Your task to perform on an android device: find photos in the google photos app Image 0: 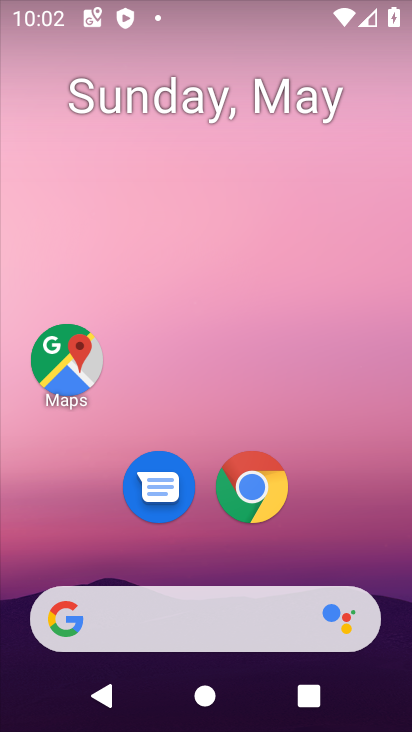
Step 0: drag from (366, 562) to (326, 213)
Your task to perform on an android device: find photos in the google photos app Image 1: 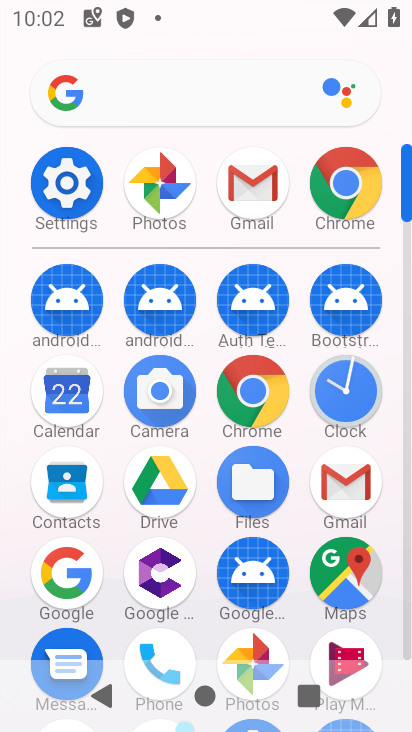
Step 1: drag from (297, 529) to (295, 375)
Your task to perform on an android device: find photos in the google photos app Image 2: 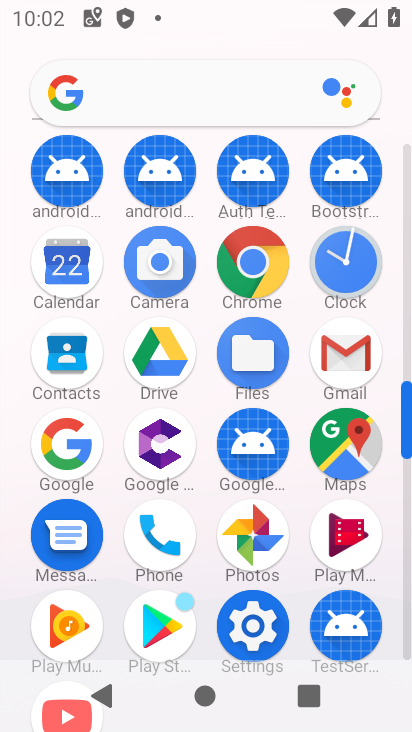
Step 2: click (260, 552)
Your task to perform on an android device: find photos in the google photos app Image 3: 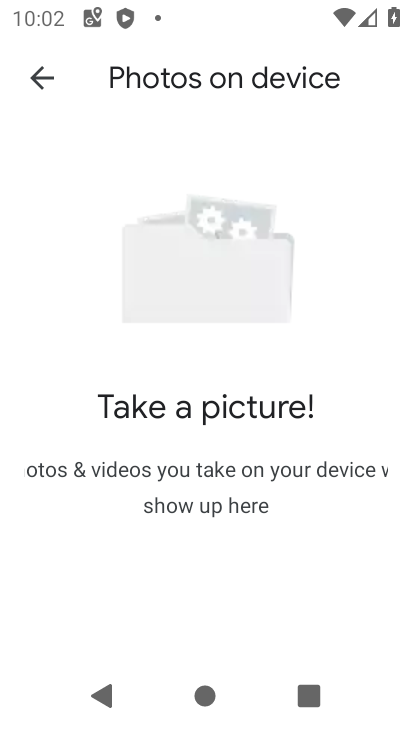
Step 3: click (50, 87)
Your task to perform on an android device: find photos in the google photos app Image 4: 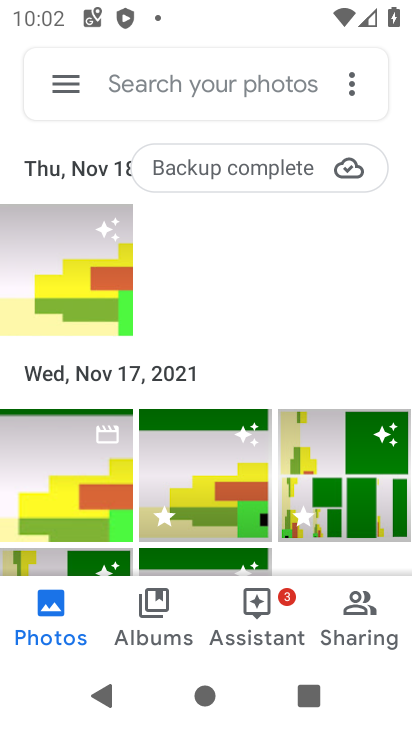
Step 4: click (87, 252)
Your task to perform on an android device: find photos in the google photos app Image 5: 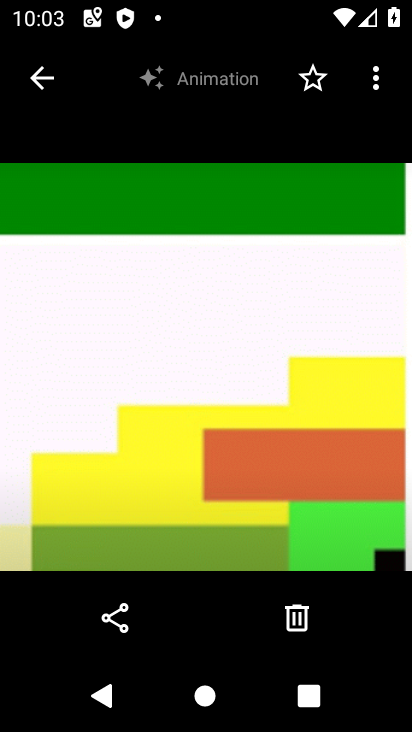
Step 5: task complete